Your task to perform on an android device: star an email in the gmail app Image 0: 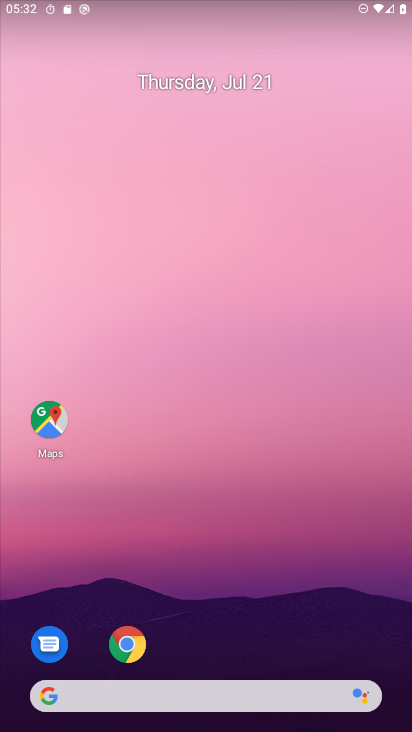
Step 0: drag from (207, 363) to (233, 100)
Your task to perform on an android device: star an email in the gmail app Image 1: 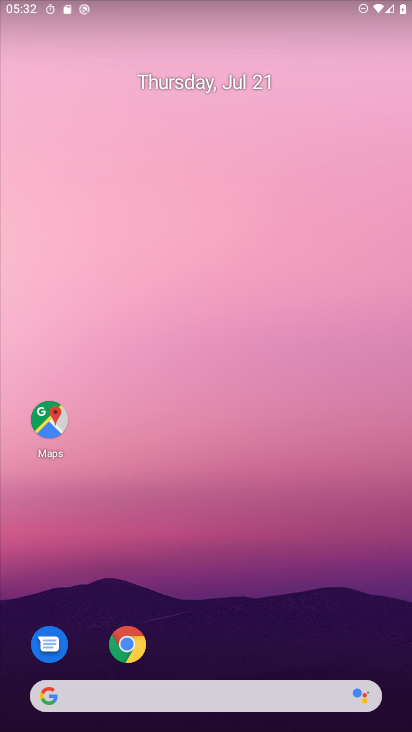
Step 1: drag from (219, 640) to (246, 109)
Your task to perform on an android device: star an email in the gmail app Image 2: 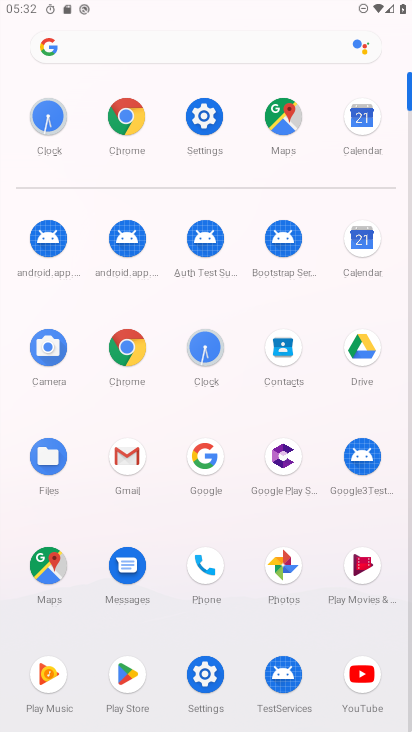
Step 2: click (131, 457)
Your task to perform on an android device: star an email in the gmail app Image 3: 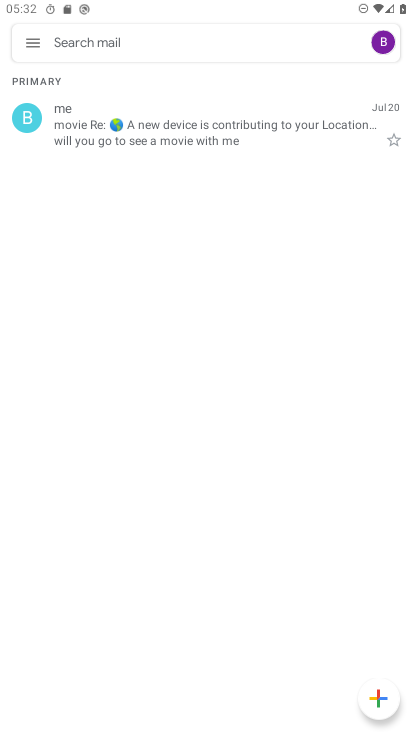
Step 3: click (394, 141)
Your task to perform on an android device: star an email in the gmail app Image 4: 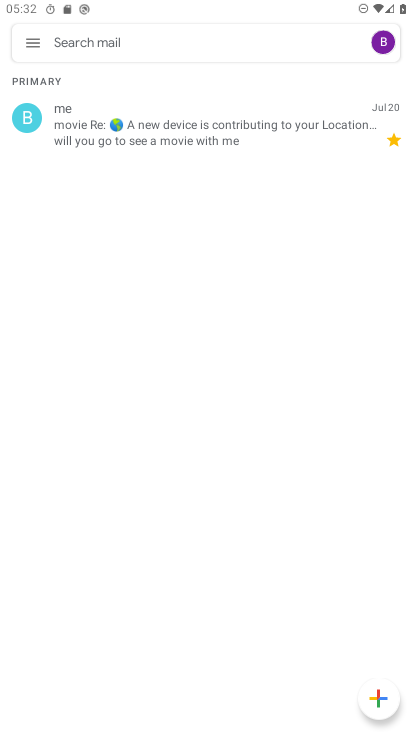
Step 4: task complete